Your task to perform on an android device: When is my next appointment? Image 0: 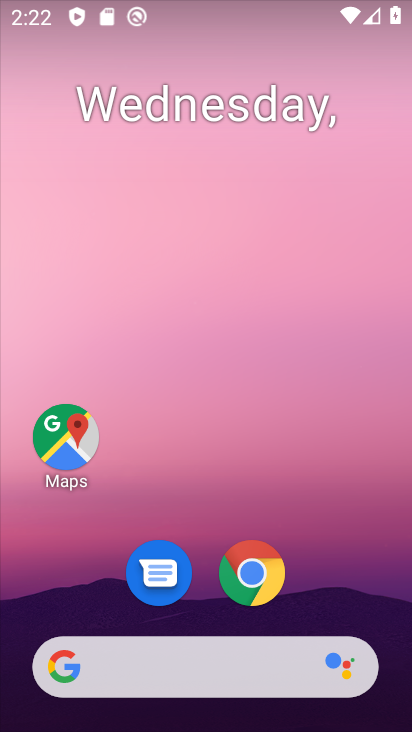
Step 0: drag from (197, 617) to (185, 159)
Your task to perform on an android device: When is my next appointment? Image 1: 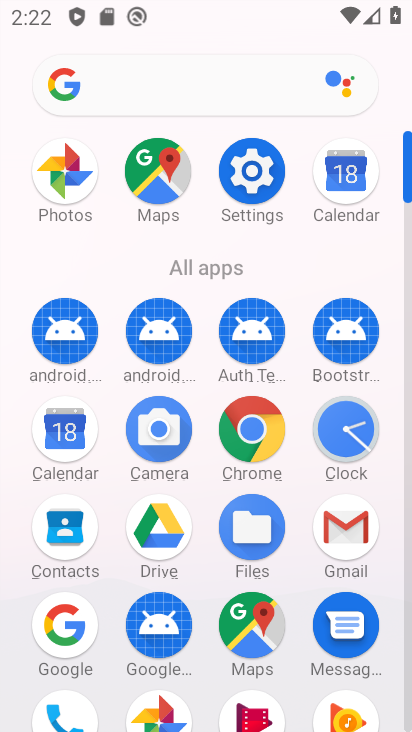
Step 1: click (325, 198)
Your task to perform on an android device: When is my next appointment? Image 2: 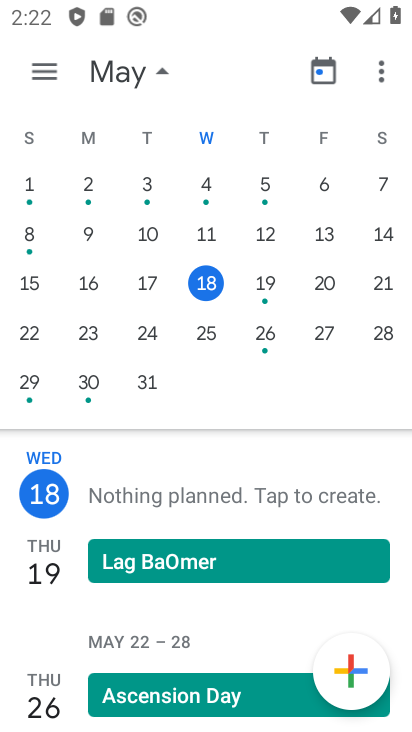
Step 2: task complete